Your task to perform on an android device: turn off javascript in the chrome app Image 0: 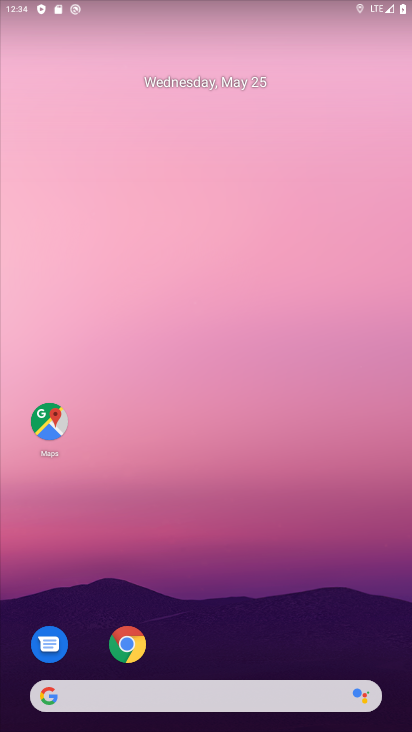
Step 0: click (127, 641)
Your task to perform on an android device: turn off javascript in the chrome app Image 1: 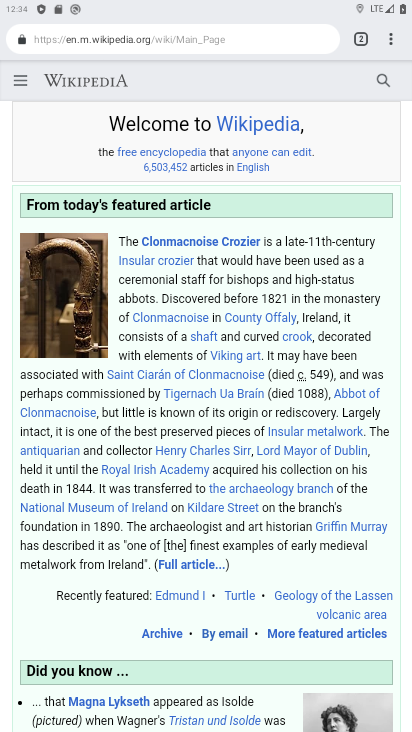
Step 1: click (388, 41)
Your task to perform on an android device: turn off javascript in the chrome app Image 2: 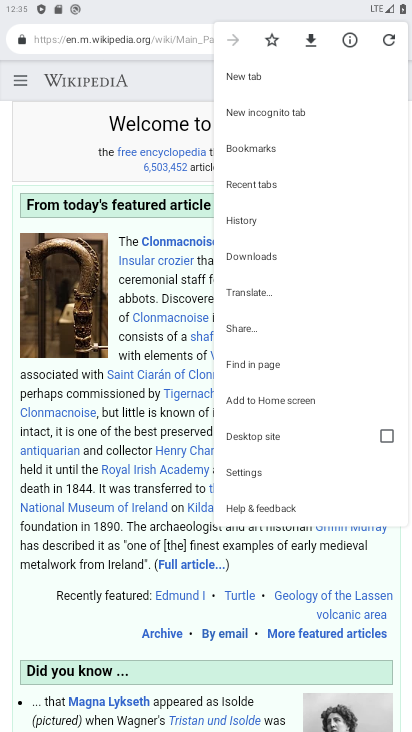
Step 2: click (251, 465)
Your task to perform on an android device: turn off javascript in the chrome app Image 3: 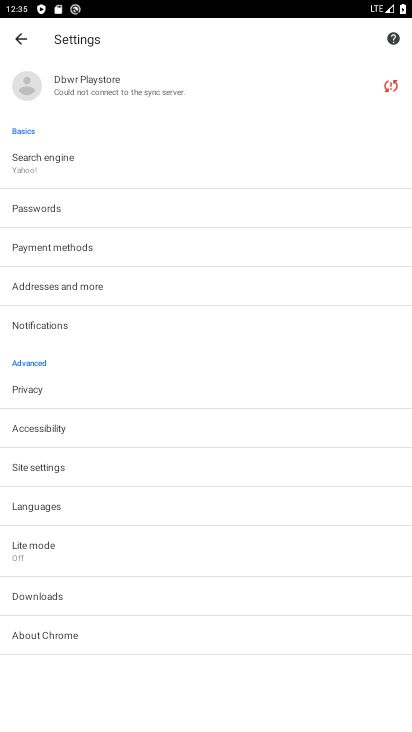
Step 3: click (236, 468)
Your task to perform on an android device: turn off javascript in the chrome app Image 4: 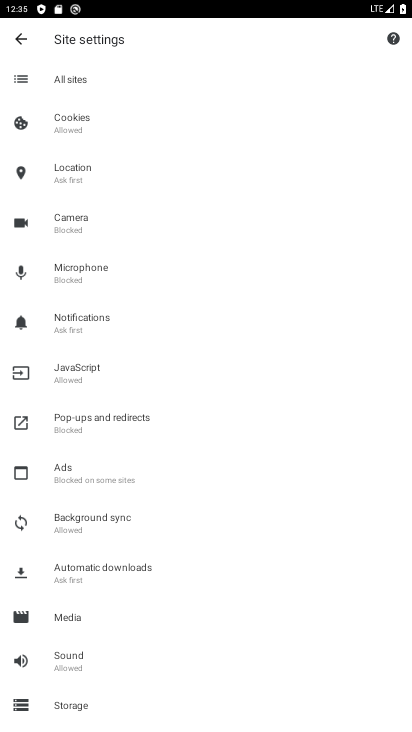
Step 4: click (80, 358)
Your task to perform on an android device: turn off javascript in the chrome app Image 5: 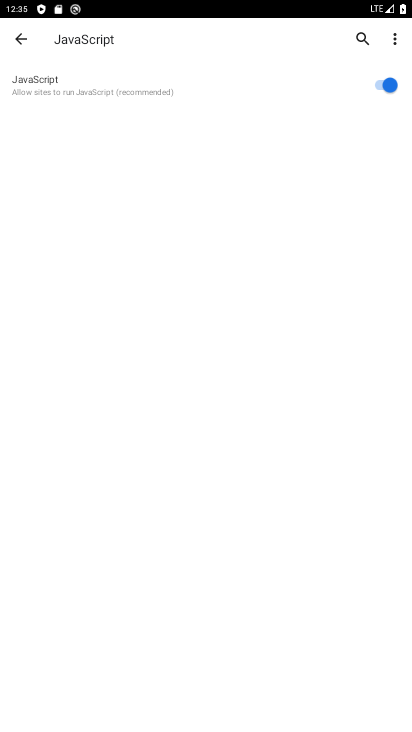
Step 5: click (392, 80)
Your task to perform on an android device: turn off javascript in the chrome app Image 6: 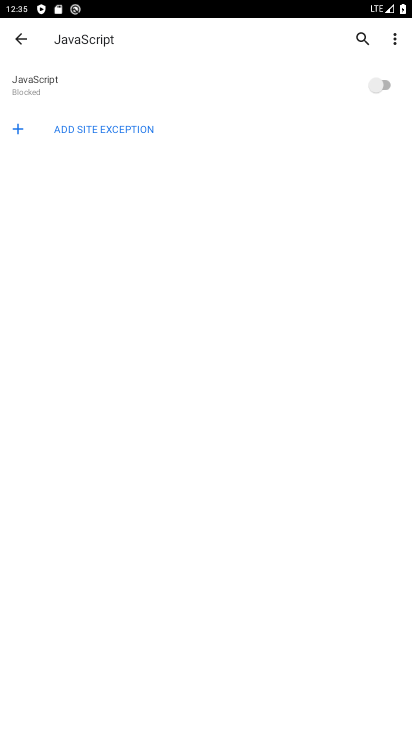
Step 6: task complete